Your task to perform on an android device: Go to Google maps Image 0: 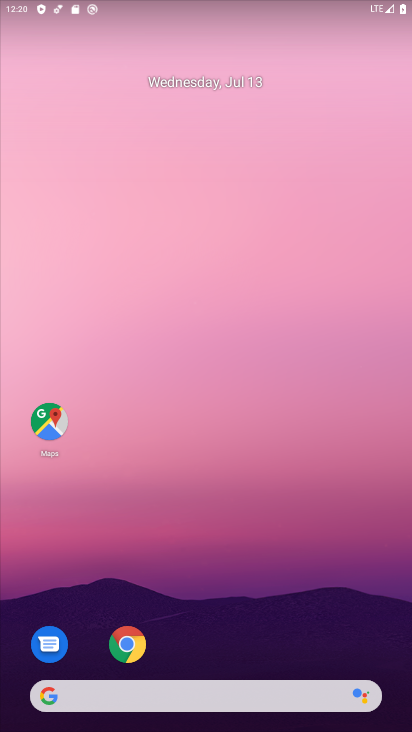
Step 0: drag from (193, 457) to (193, 282)
Your task to perform on an android device: Go to Google maps Image 1: 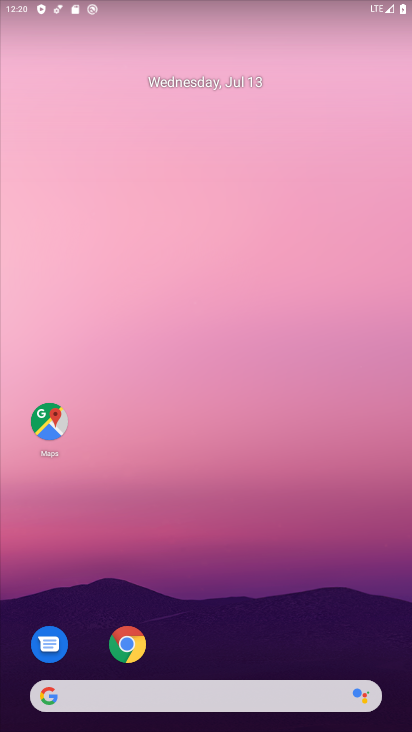
Step 1: drag from (186, 526) to (209, 116)
Your task to perform on an android device: Go to Google maps Image 2: 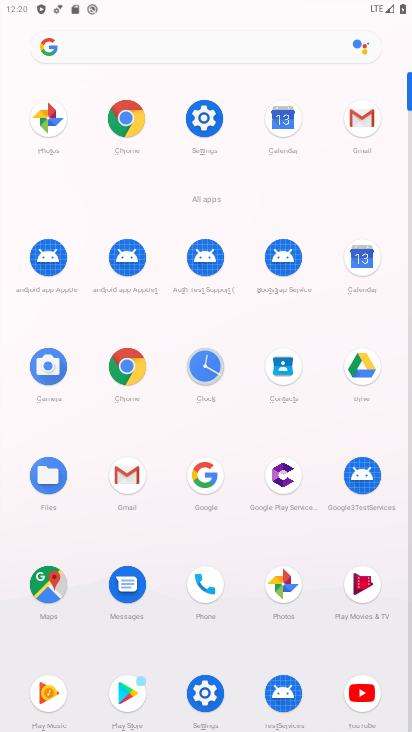
Step 2: click (49, 585)
Your task to perform on an android device: Go to Google maps Image 3: 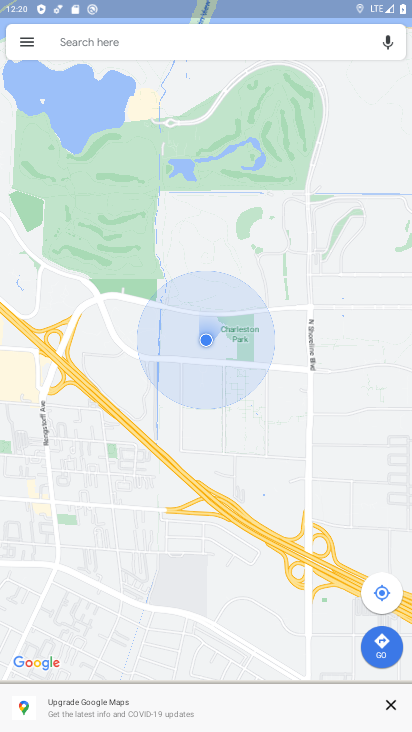
Step 3: task complete